Your task to perform on an android device: Go to network settings Image 0: 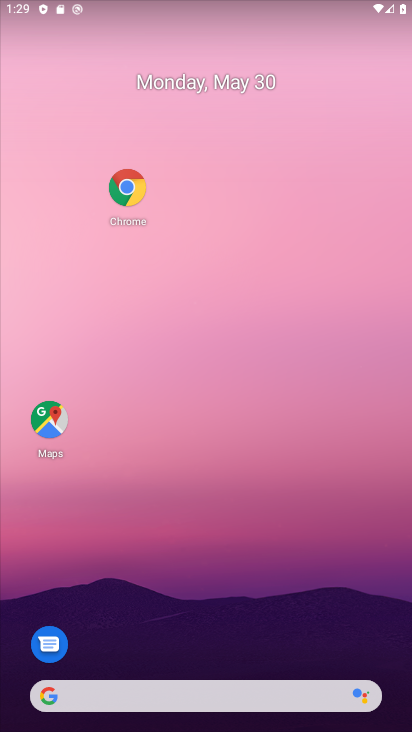
Step 0: drag from (263, 11) to (240, 622)
Your task to perform on an android device: Go to network settings Image 1: 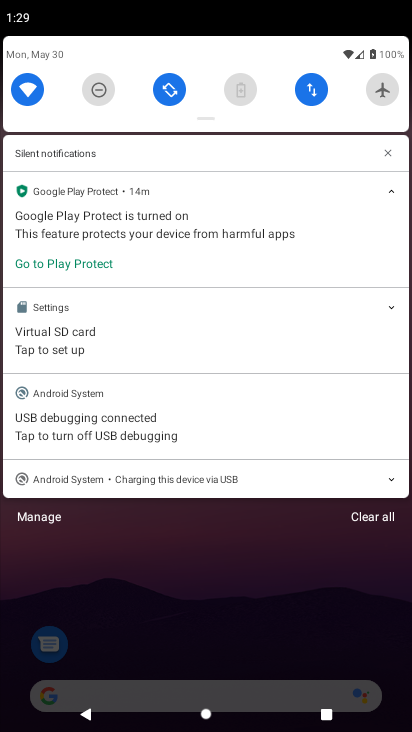
Step 1: click (314, 85)
Your task to perform on an android device: Go to network settings Image 2: 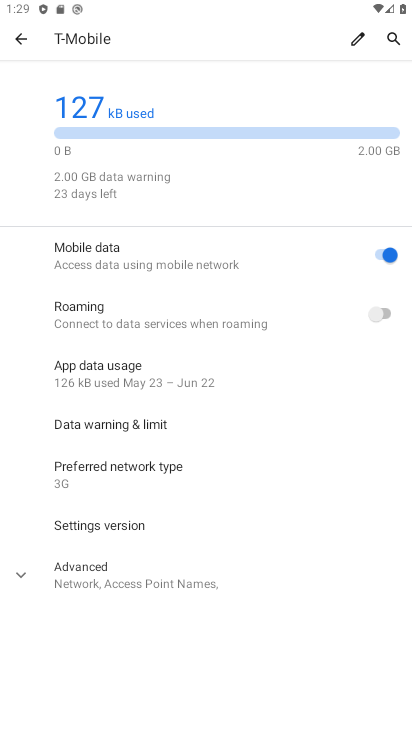
Step 2: task complete